Your task to perform on an android device: Open the calendar app, open the side menu, and click the "Day" option Image 0: 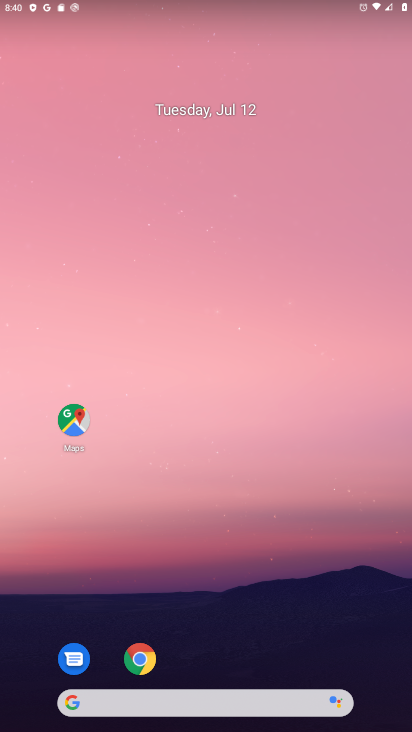
Step 0: drag from (362, 708) to (293, 236)
Your task to perform on an android device: Open the calendar app, open the side menu, and click the "Day" option Image 1: 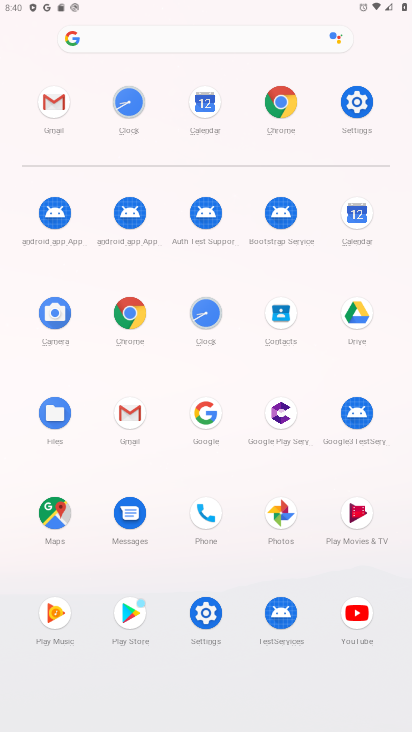
Step 1: click (355, 213)
Your task to perform on an android device: Open the calendar app, open the side menu, and click the "Day" option Image 2: 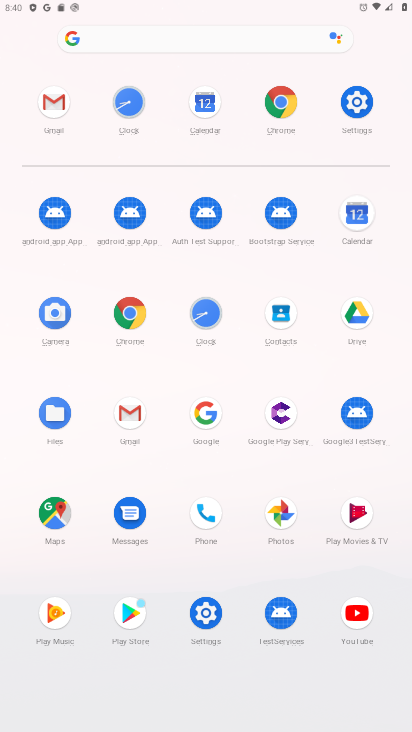
Step 2: click (356, 212)
Your task to perform on an android device: Open the calendar app, open the side menu, and click the "Day" option Image 3: 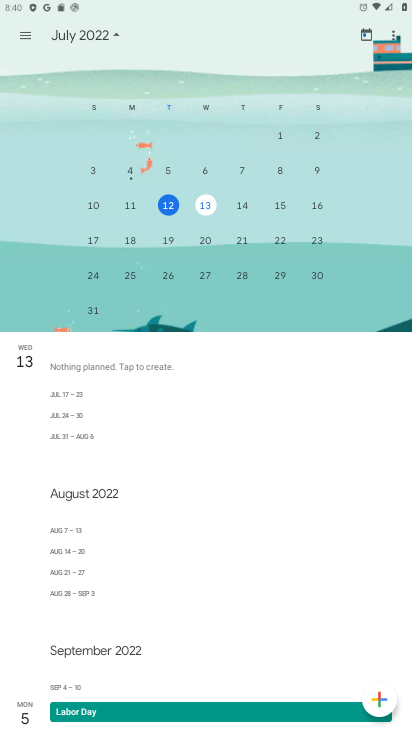
Step 3: click (22, 34)
Your task to perform on an android device: Open the calendar app, open the side menu, and click the "Day" option Image 4: 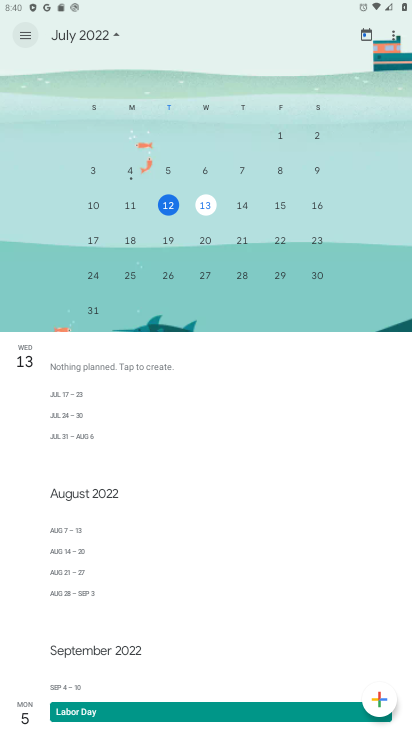
Step 4: click (23, 34)
Your task to perform on an android device: Open the calendar app, open the side menu, and click the "Day" option Image 5: 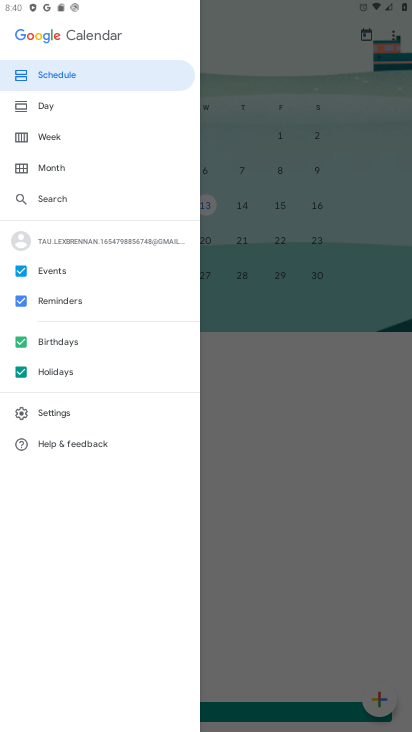
Step 5: click (47, 108)
Your task to perform on an android device: Open the calendar app, open the side menu, and click the "Day" option Image 6: 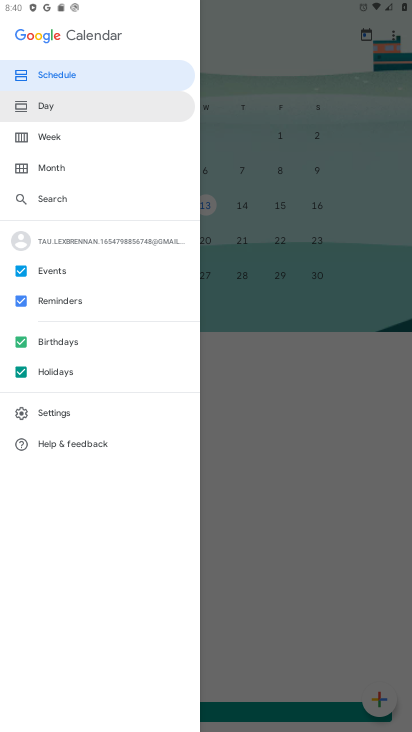
Step 6: click (47, 108)
Your task to perform on an android device: Open the calendar app, open the side menu, and click the "Day" option Image 7: 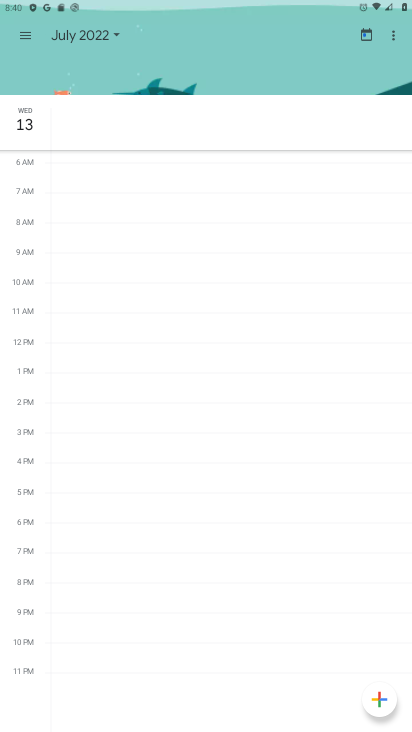
Step 7: click (32, 35)
Your task to perform on an android device: Open the calendar app, open the side menu, and click the "Day" option Image 8: 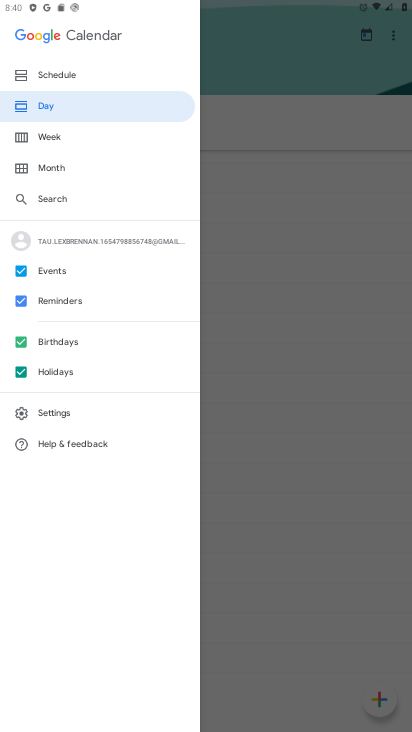
Step 8: click (349, 203)
Your task to perform on an android device: Open the calendar app, open the side menu, and click the "Day" option Image 9: 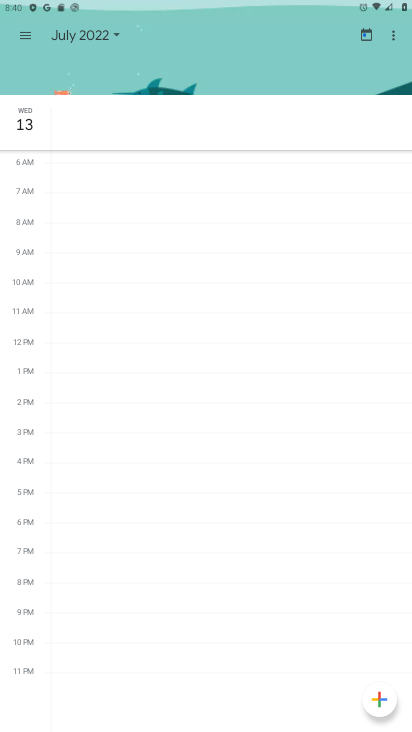
Step 9: task complete